Your task to perform on an android device: Open internet settings Image 0: 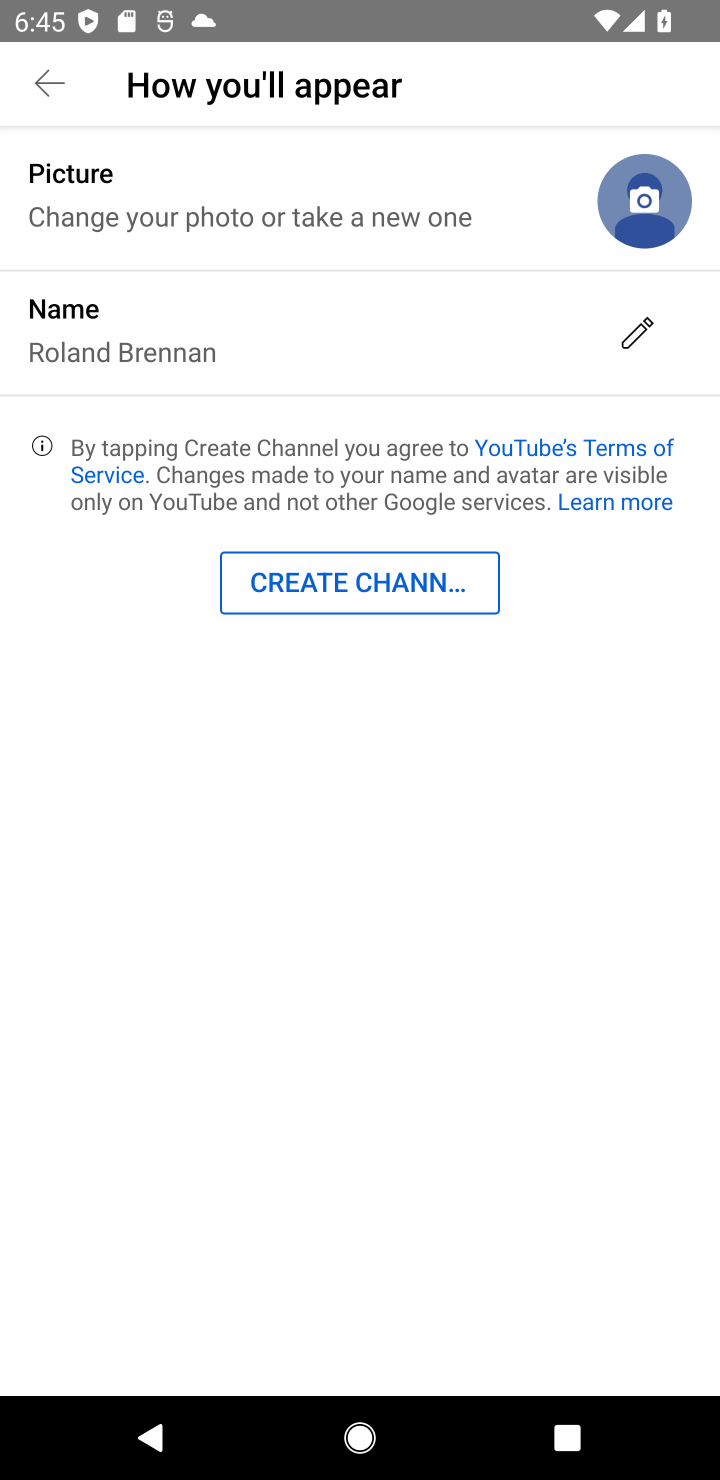
Step 0: press home button
Your task to perform on an android device: Open internet settings Image 1: 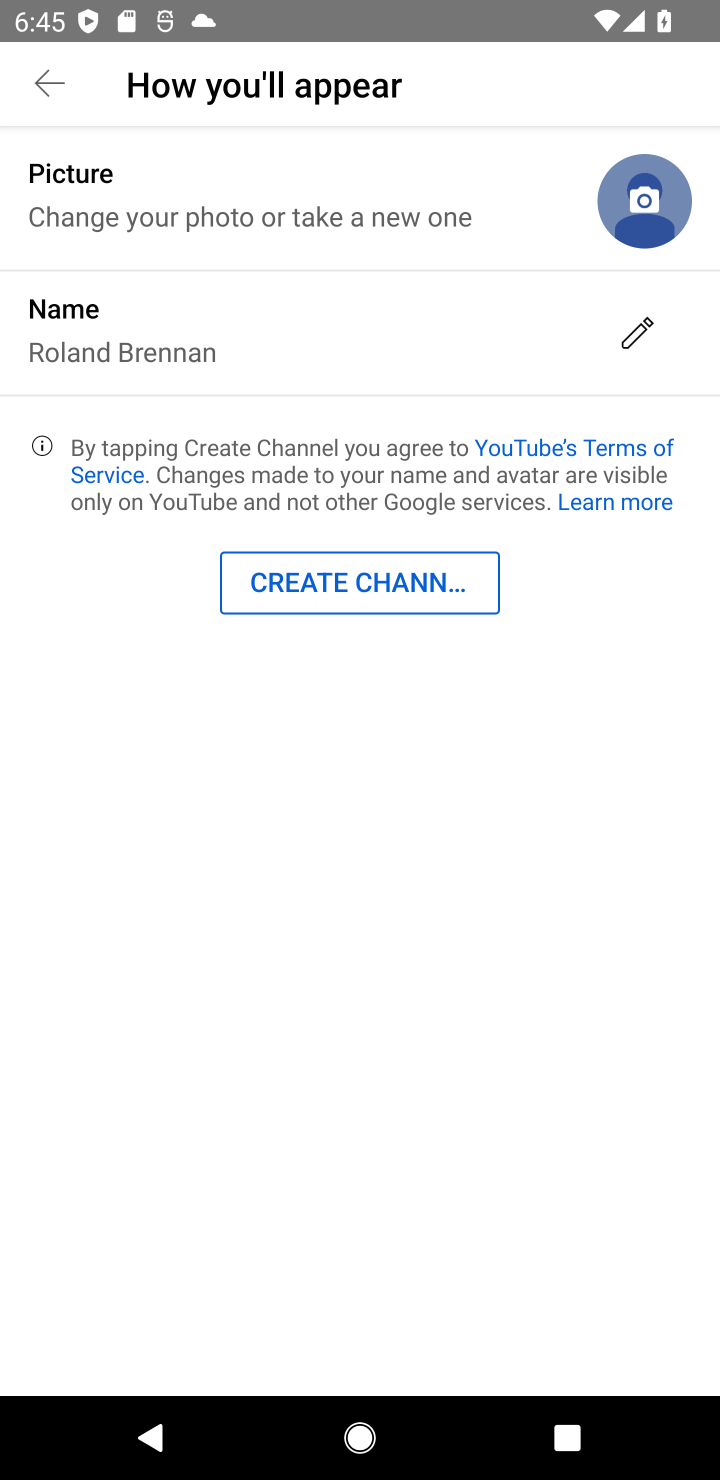
Step 1: press home button
Your task to perform on an android device: Open internet settings Image 2: 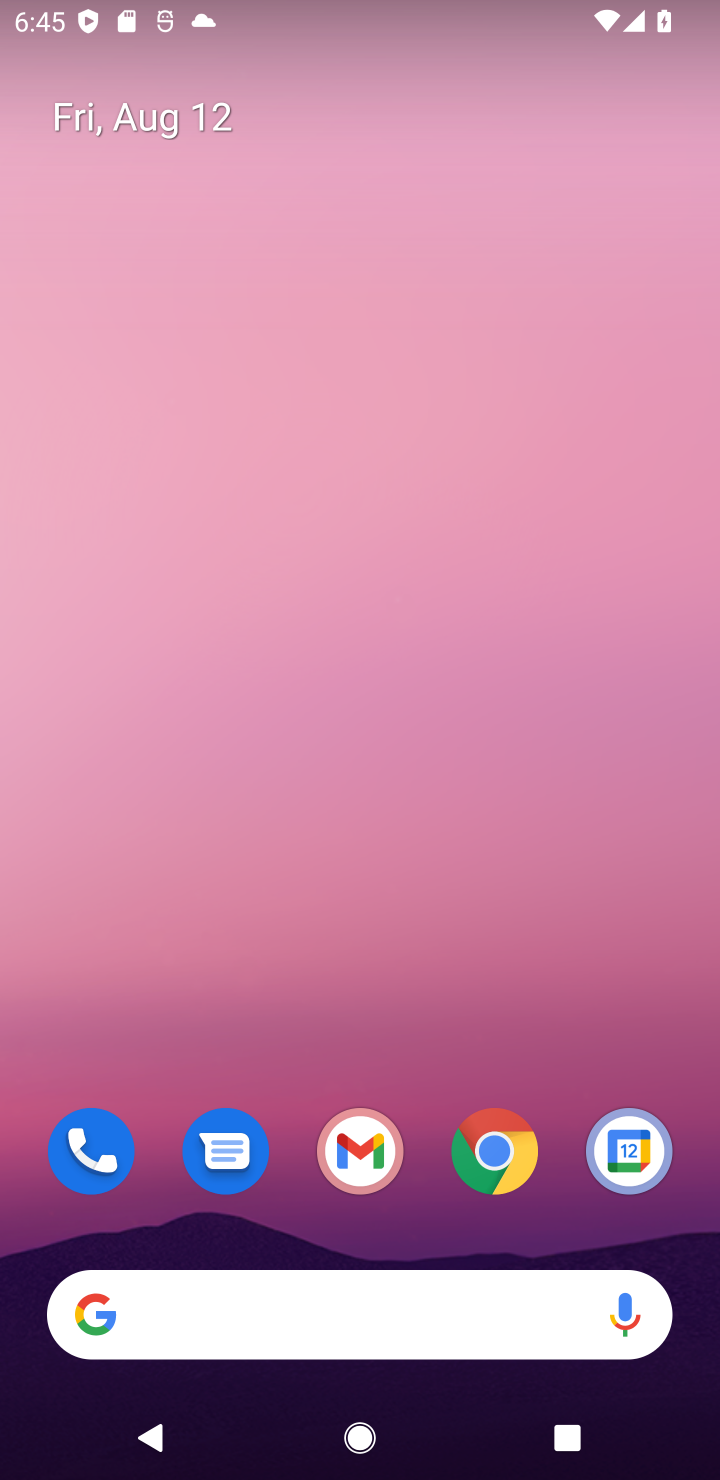
Step 2: drag from (340, 1041) to (443, 273)
Your task to perform on an android device: Open internet settings Image 3: 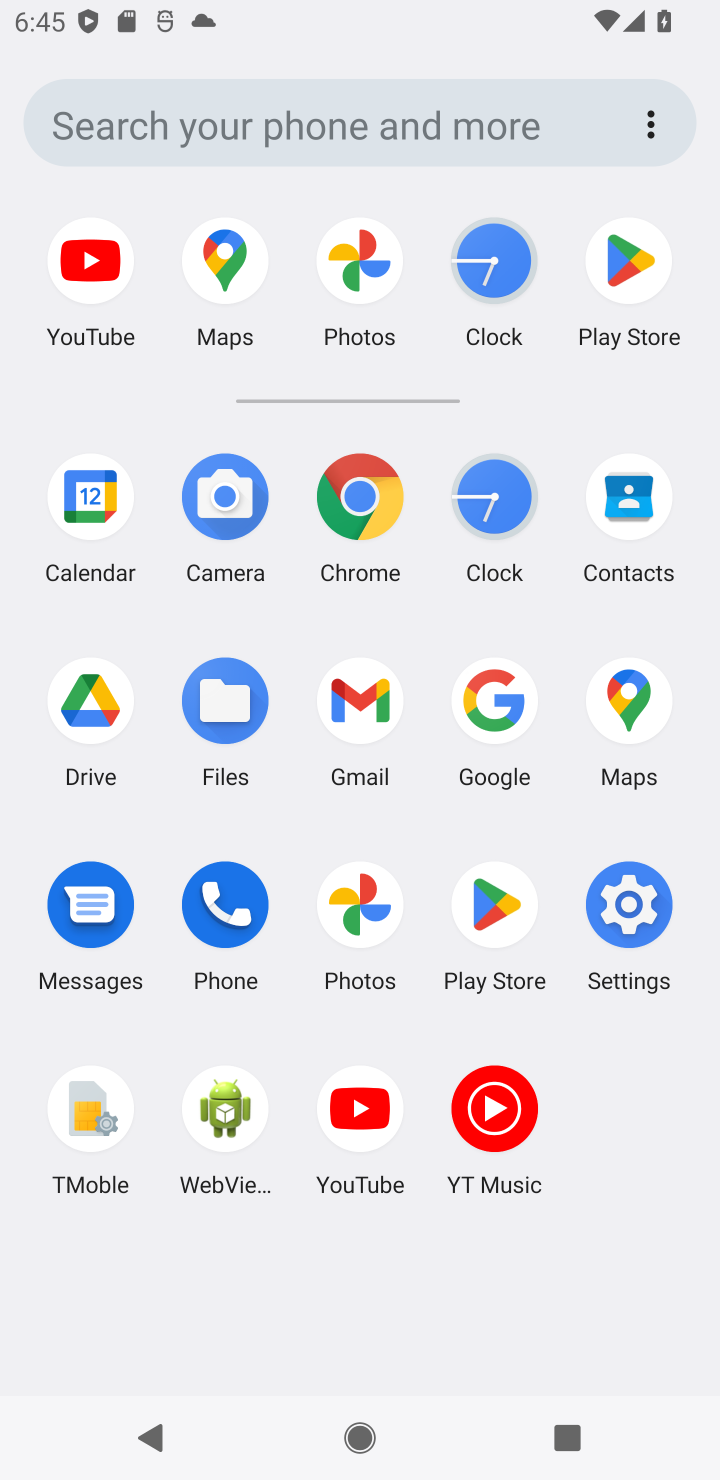
Step 3: click (647, 891)
Your task to perform on an android device: Open internet settings Image 4: 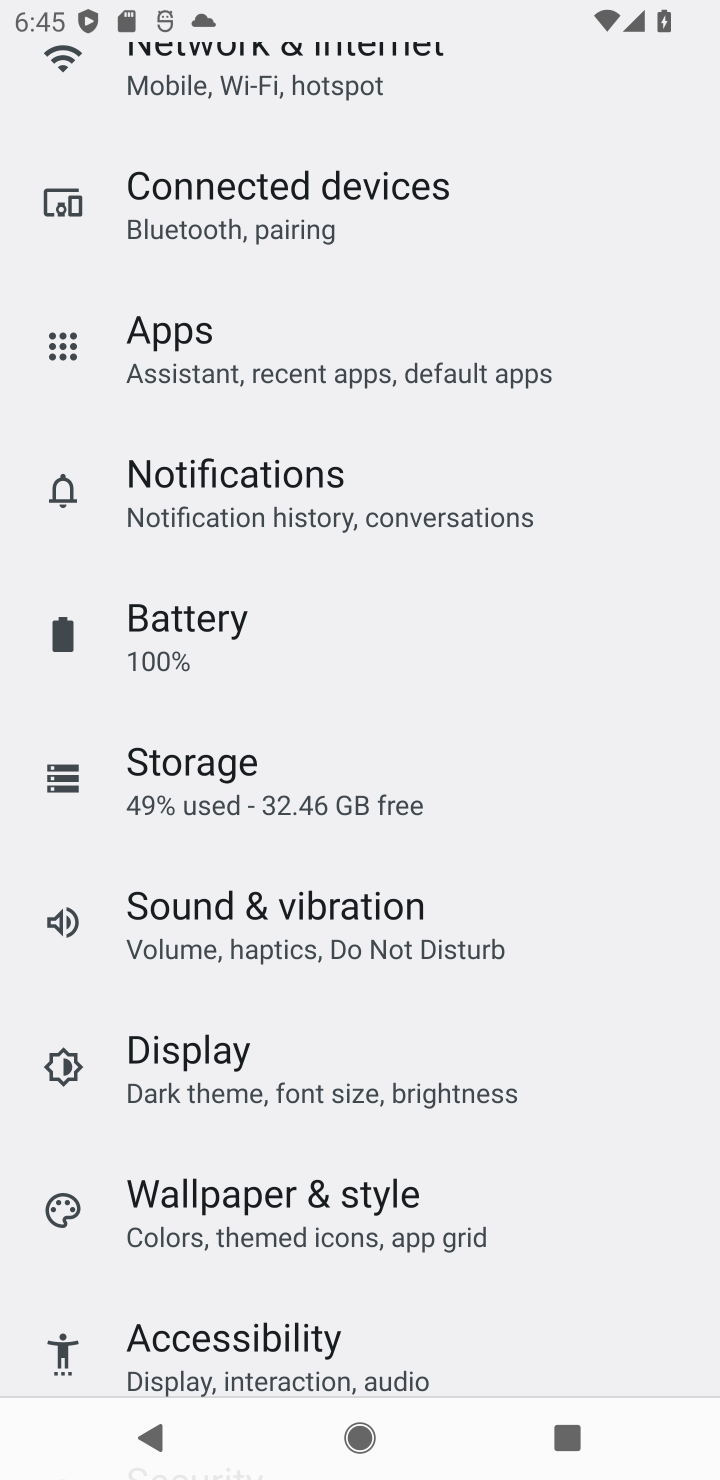
Step 4: drag from (455, 296) to (311, 1148)
Your task to perform on an android device: Open internet settings Image 5: 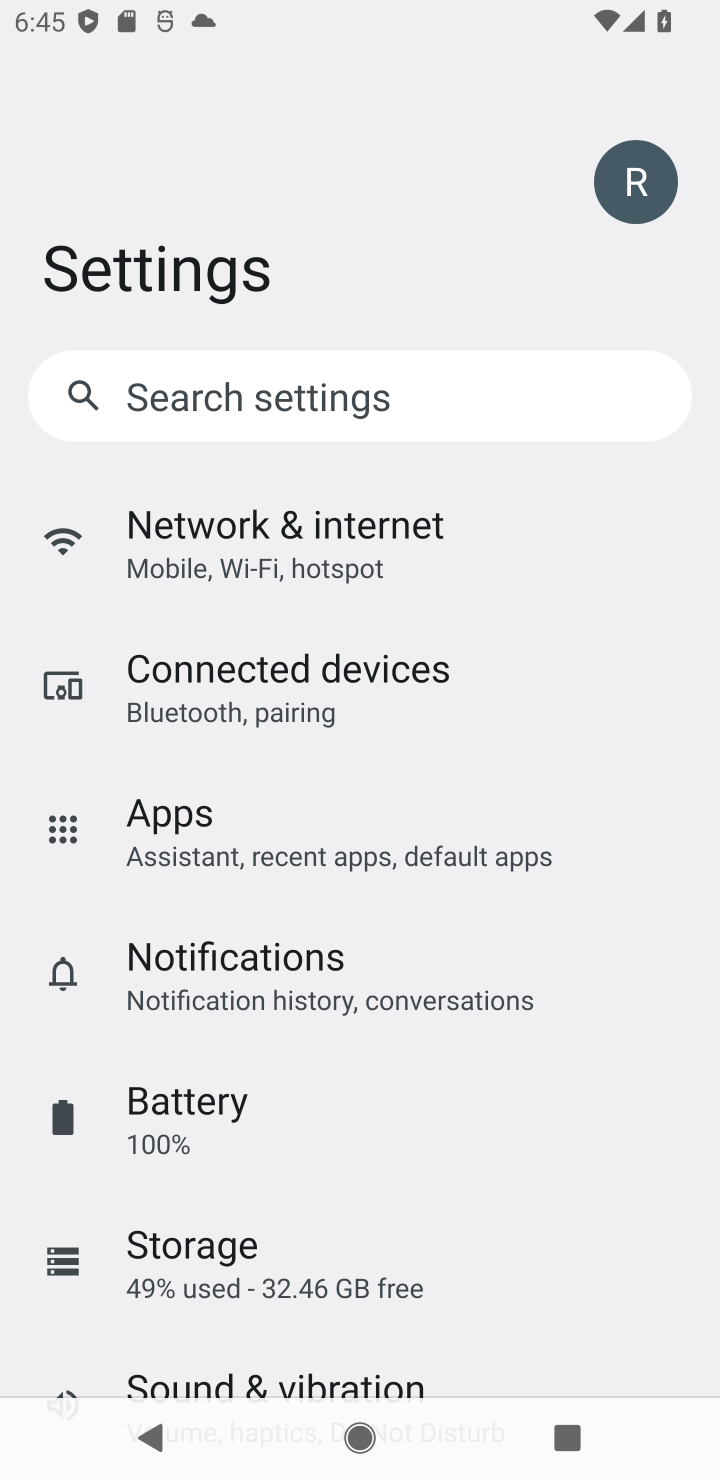
Step 5: click (254, 520)
Your task to perform on an android device: Open internet settings Image 6: 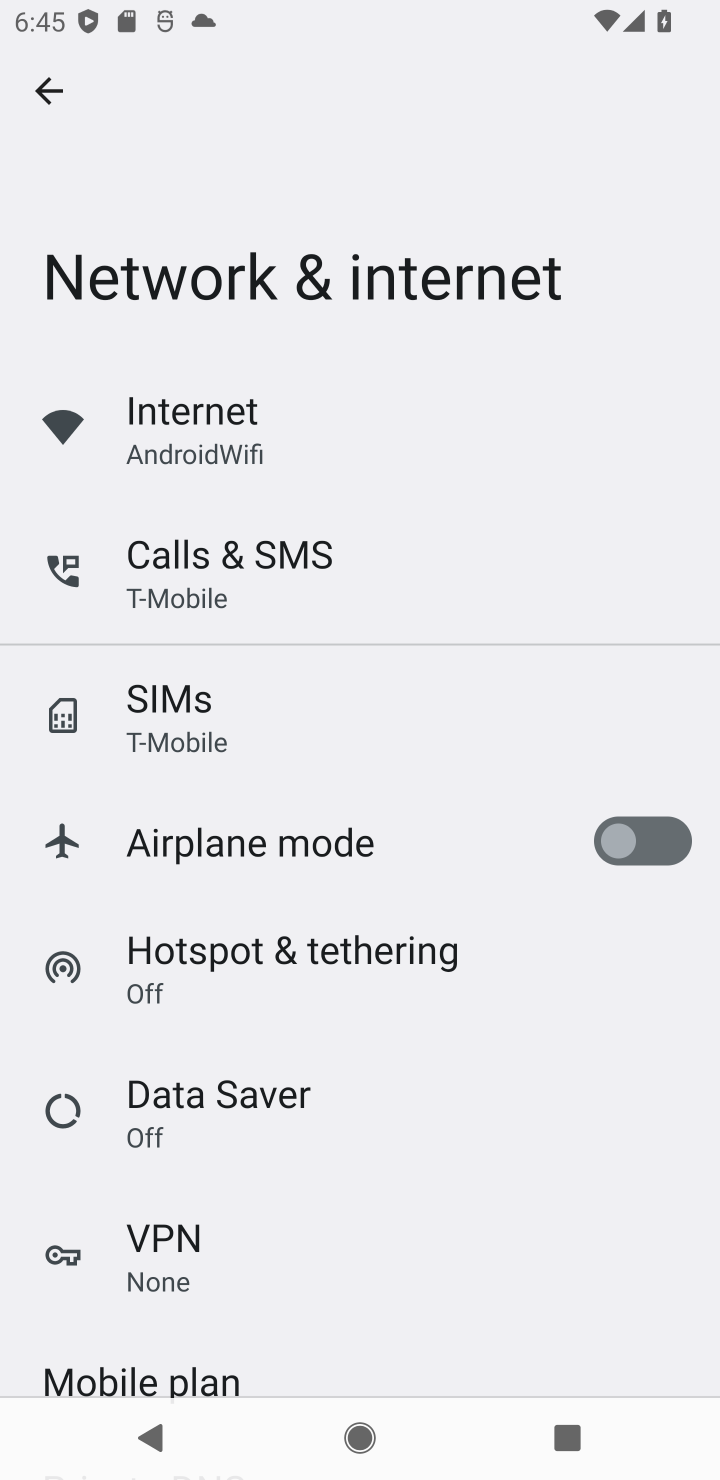
Step 6: click (223, 417)
Your task to perform on an android device: Open internet settings Image 7: 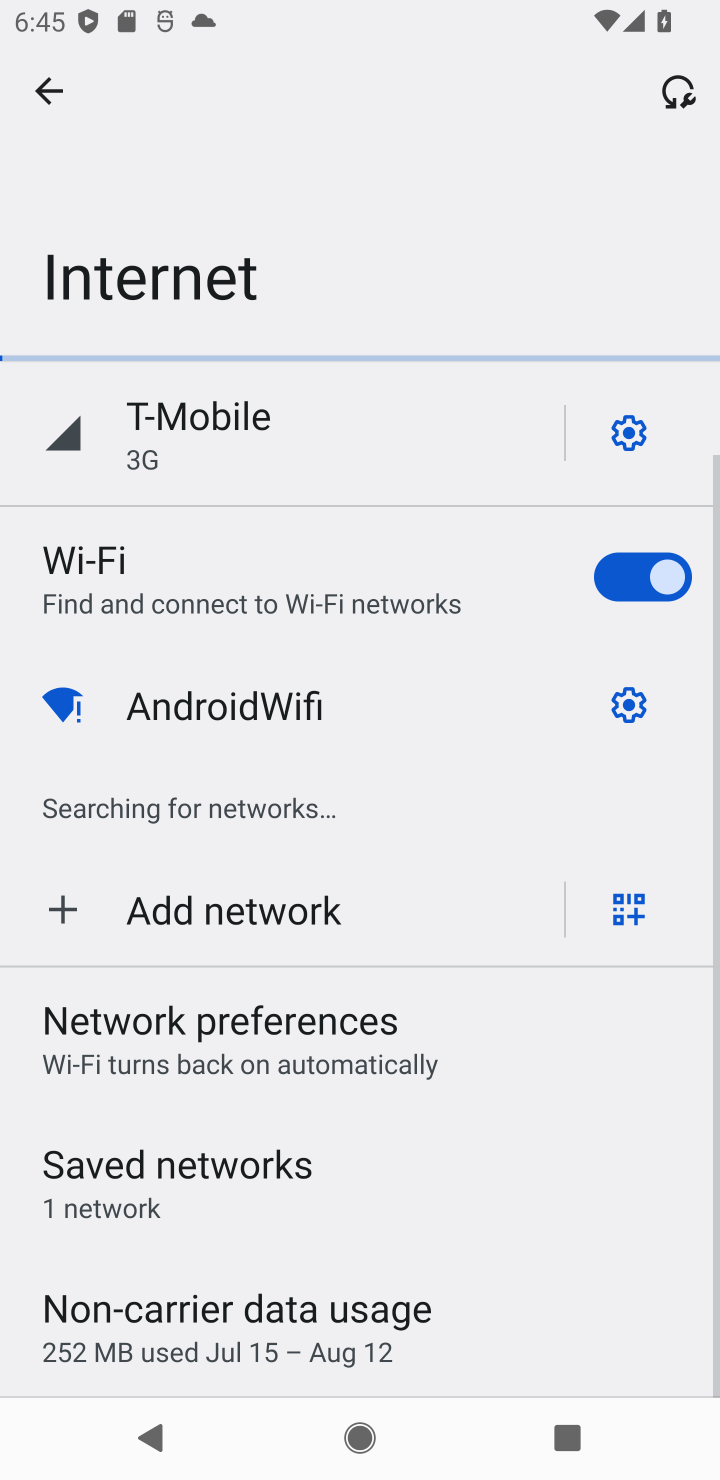
Step 7: task complete